Your task to perform on an android device: toggle improve location accuracy Image 0: 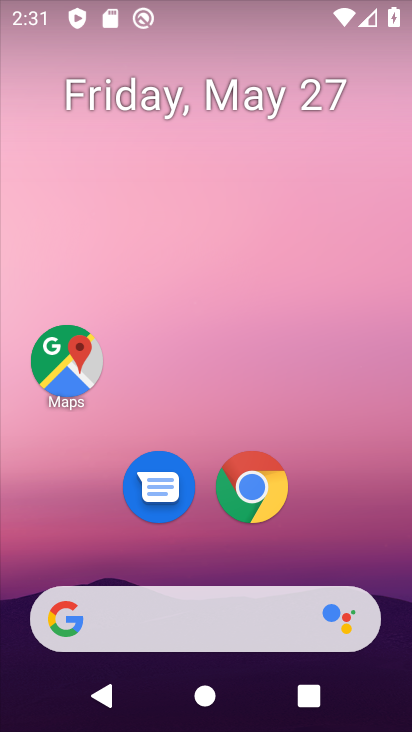
Step 0: drag from (319, 573) to (311, 73)
Your task to perform on an android device: toggle improve location accuracy Image 1: 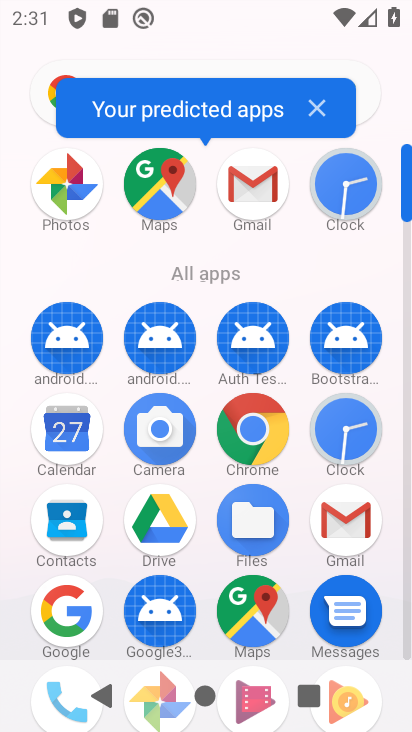
Step 1: drag from (306, 283) to (331, 12)
Your task to perform on an android device: toggle improve location accuracy Image 2: 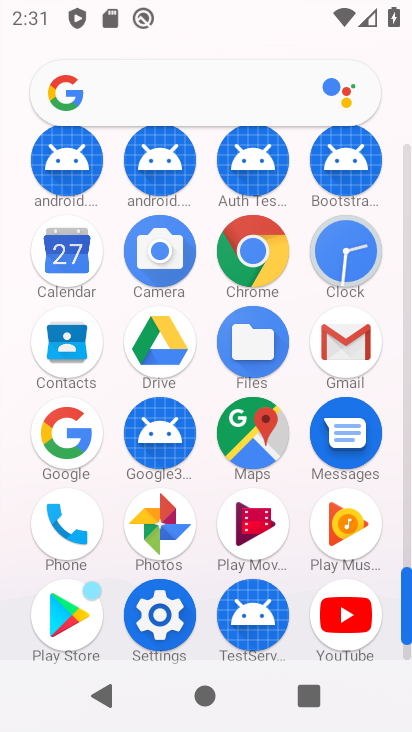
Step 2: click (156, 601)
Your task to perform on an android device: toggle improve location accuracy Image 3: 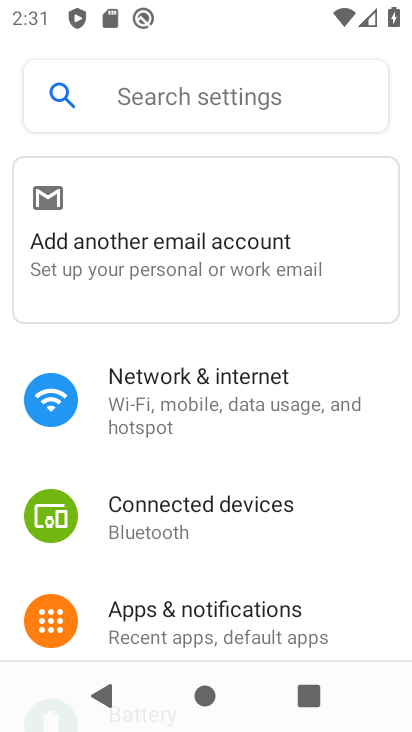
Step 3: drag from (239, 599) to (256, 185)
Your task to perform on an android device: toggle improve location accuracy Image 4: 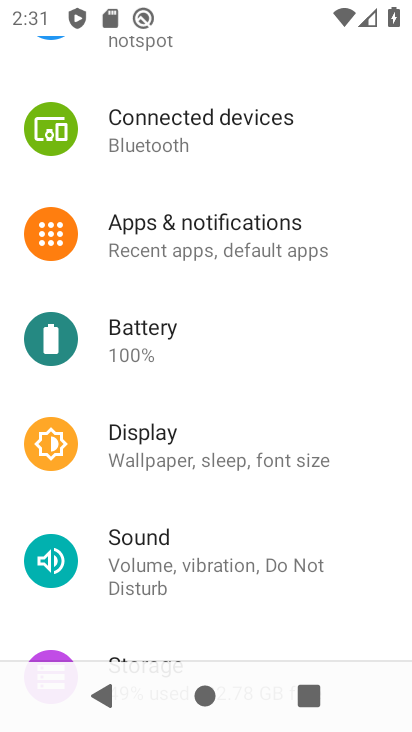
Step 4: drag from (171, 589) to (243, 155)
Your task to perform on an android device: toggle improve location accuracy Image 5: 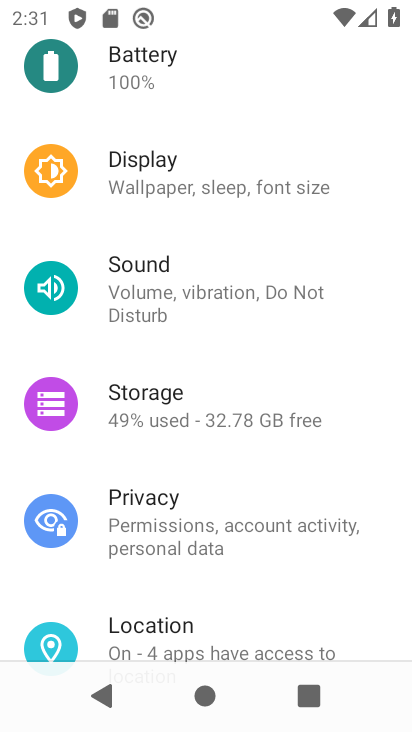
Step 5: click (152, 630)
Your task to perform on an android device: toggle improve location accuracy Image 6: 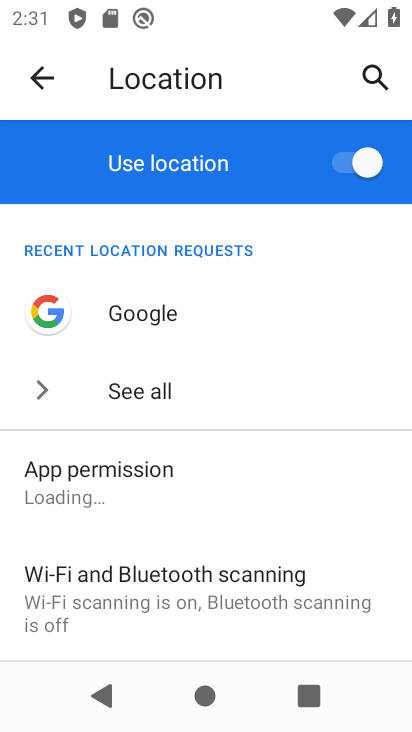
Step 6: drag from (273, 522) to (280, 91)
Your task to perform on an android device: toggle improve location accuracy Image 7: 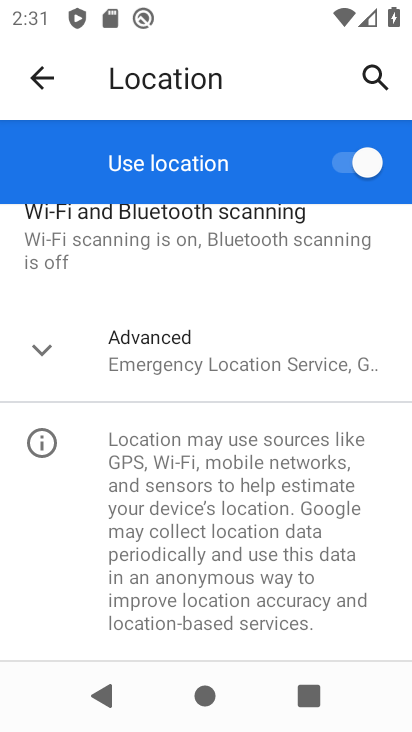
Step 7: click (183, 363)
Your task to perform on an android device: toggle improve location accuracy Image 8: 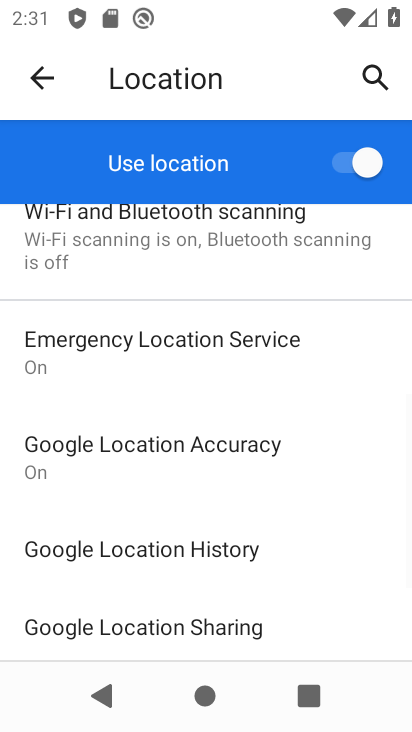
Step 8: click (169, 449)
Your task to perform on an android device: toggle improve location accuracy Image 9: 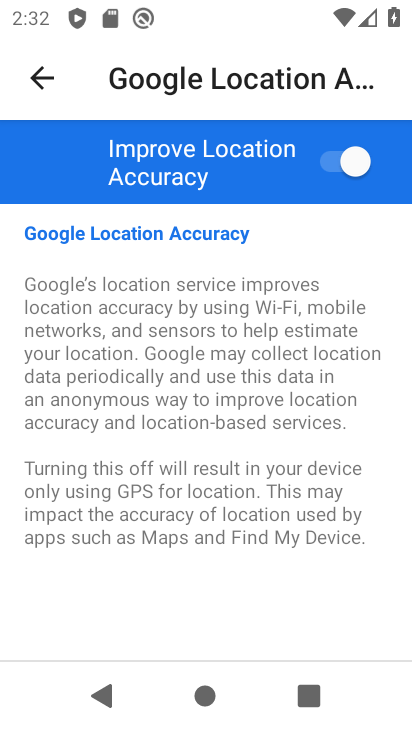
Step 9: click (335, 161)
Your task to perform on an android device: toggle improve location accuracy Image 10: 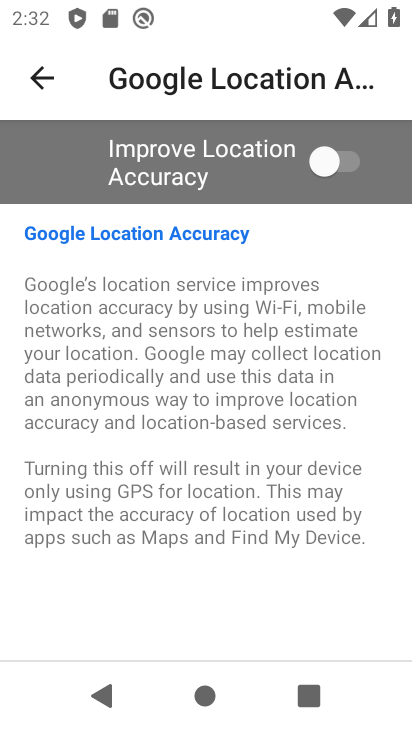
Step 10: task complete